Your task to perform on an android device: What is the recent news? Image 0: 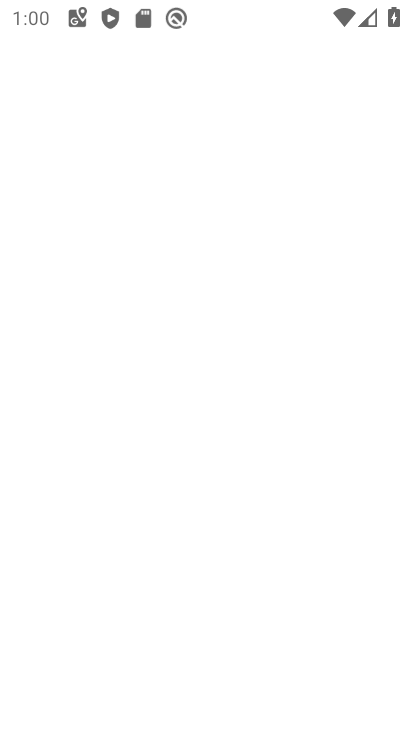
Step 0: press home button
Your task to perform on an android device: What is the recent news? Image 1: 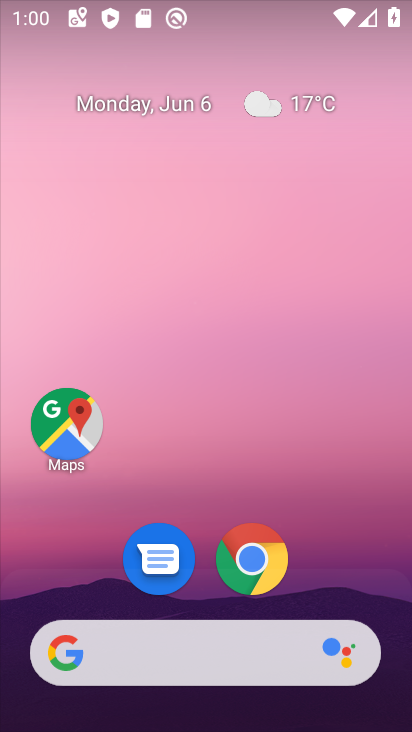
Step 1: drag from (345, 580) to (308, 198)
Your task to perform on an android device: What is the recent news? Image 2: 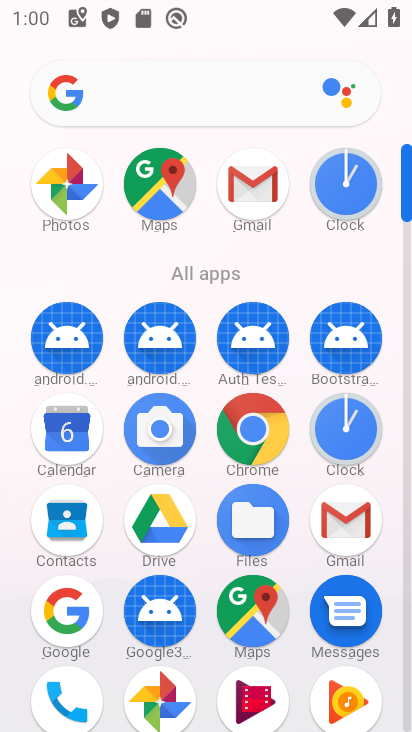
Step 2: click (253, 442)
Your task to perform on an android device: What is the recent news? Image 3: 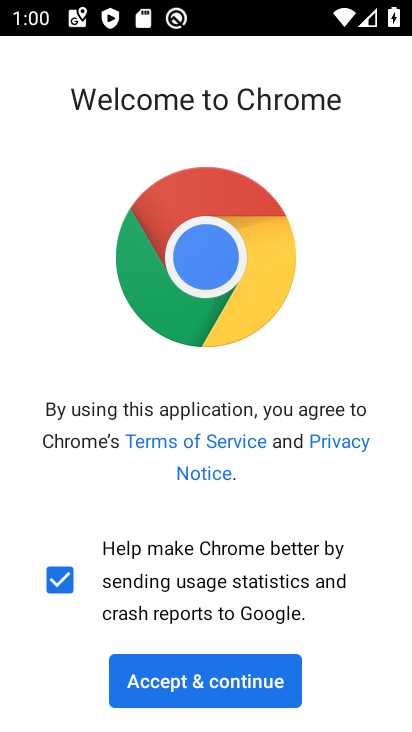
Step 3: click (232, 694)
Your task to perform on an android device: What is the recent news? Image 4: 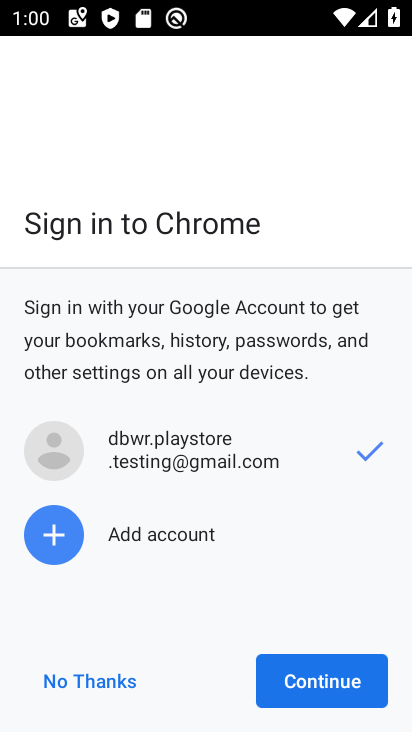
Step 4: click (355, 697)
Your task to perform on an android device: What is the recent news? Image 5: 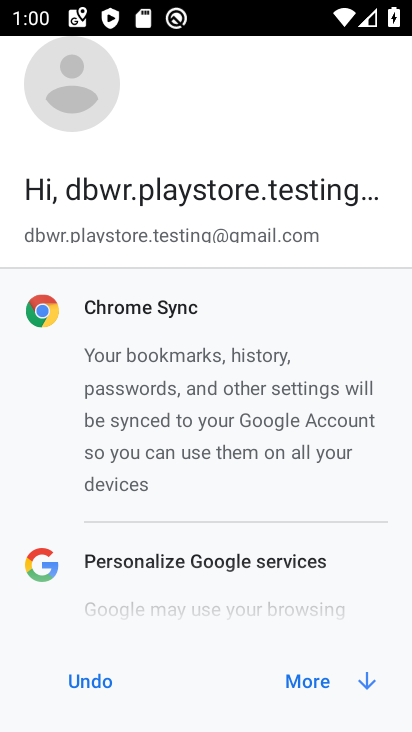
Step 5: click (347, 690)
Your task to perform on an android device: What is the recent news? Image 6: 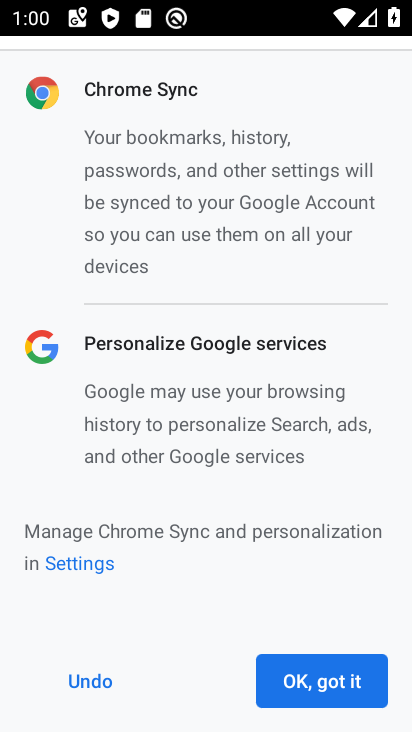
Step 6: click (347, 690)
Your task to perform on an android device: What is the recent news? Image 7: 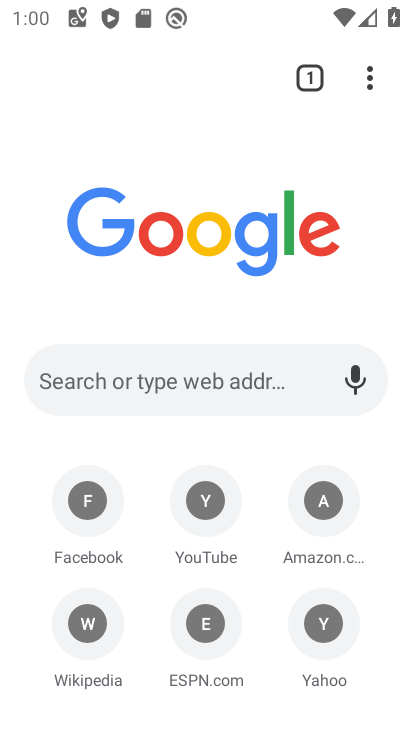
Step 7: click (214, 359)
Your task to perform on an android device: What is the recent news? Image 8: 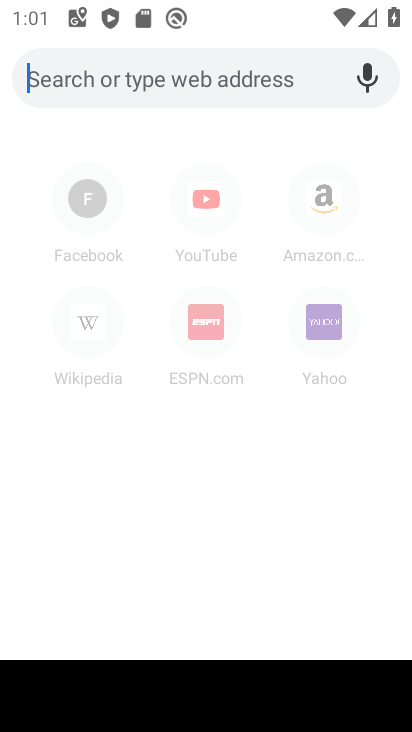
Step 8: type "what is the recent news "
Your task to perform on an android device: What is the recent news? Image 9: 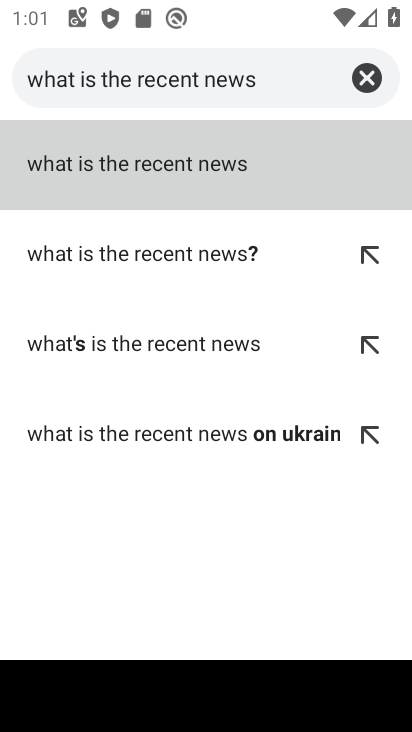
Step 9: click (181, 161)
Your task to perform on an android device: What is the recent news? Image 10: 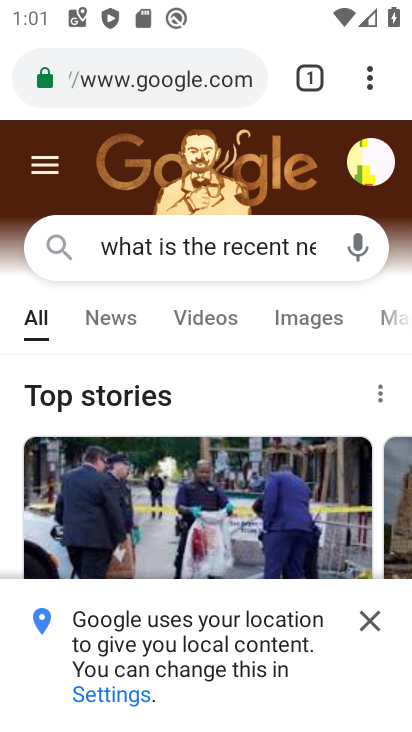
Step 10: task complete